Your task to perform on an android device: move a message to another label in the gmail app Image 0: 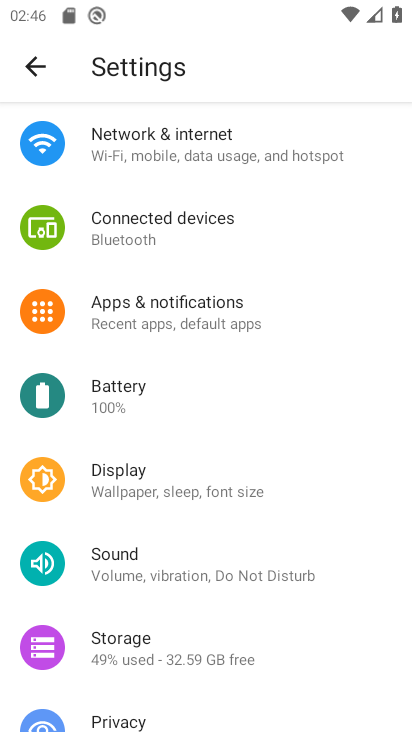
Step 0: press home button
Your task to perform on an android device: move a message to another label in the gmail app Image 1: 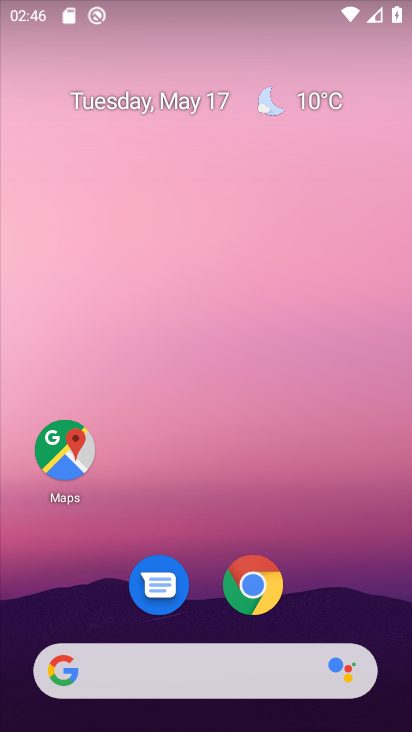
Step 1: drag from (297, 513) to (280, 42)
Your task to perform on an android device: move a message to another label in the gmail app Image 2: 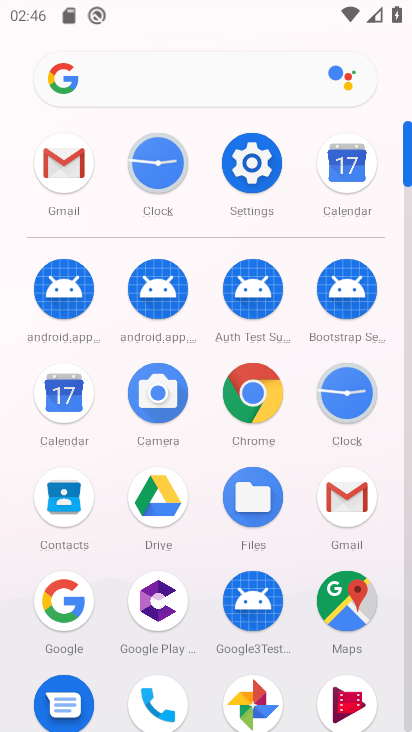
Step 2: click (71, 159)
Your task to perform on an android device: move a message to another label in the gmail app Image 3: 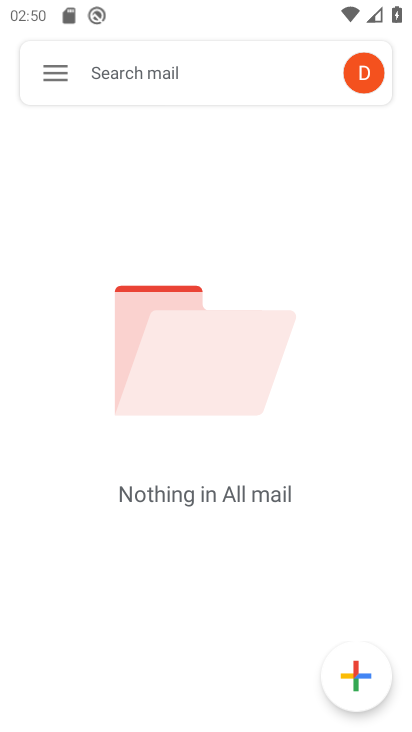
Step 3: task complete